Your task to perform on an android device: refresh tabs in the chrome app Image 0: 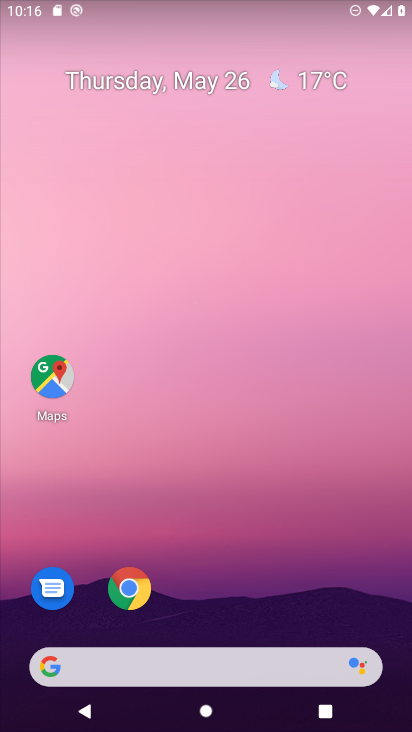
Step 0: click (130, 591)
Your task to perform on an android device: refresh tabs in the chrome app Image 1: 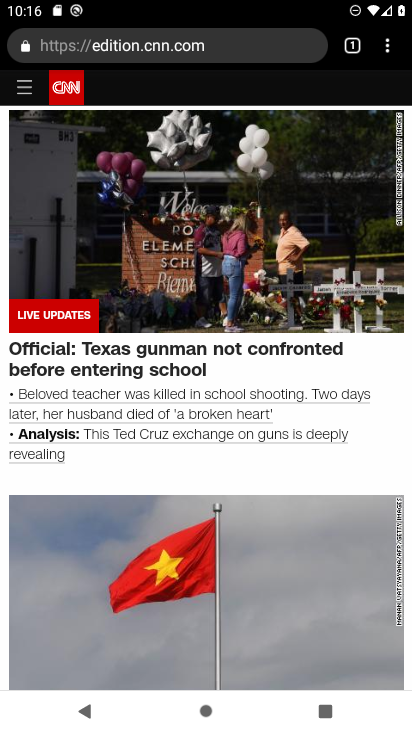
Step 1: click (385, 49)
Your task to perform on an android device: refresh tabs in the chrome app Image 2: 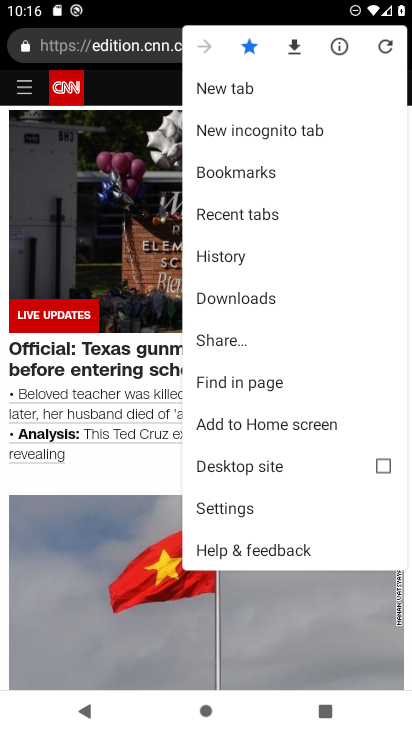
Step 2: click (387, 41)
Your task to perform on an android device: refresh tabs in the chrome app Image 3: 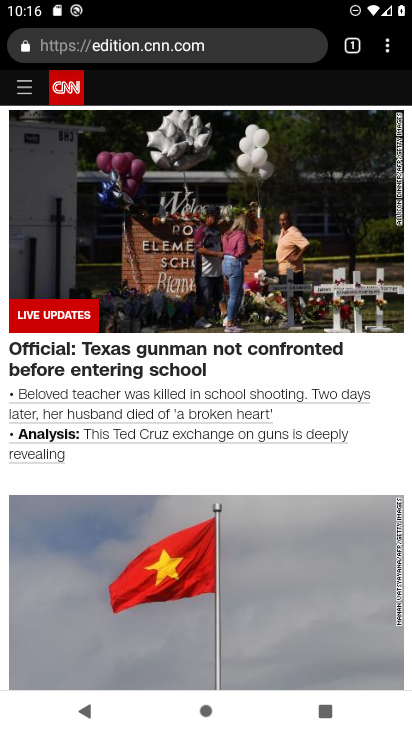
Step 3: task complete